Your task to perform on an android device: toggle javascript in the chrome app Image 0: 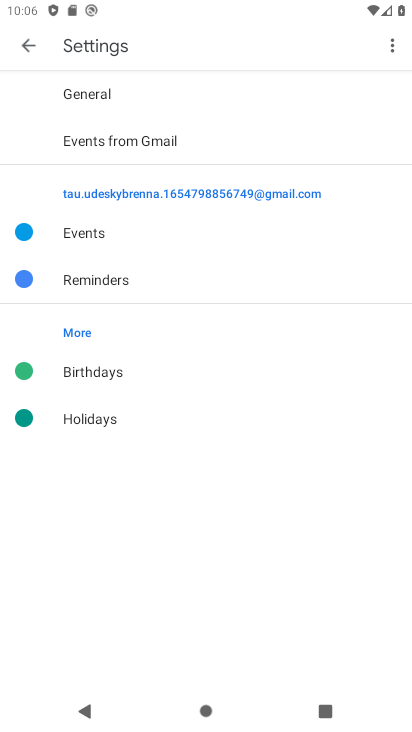
Step 0: press home button
Your task to perform on an android device: toggle javascript in the chrome app Image 1: 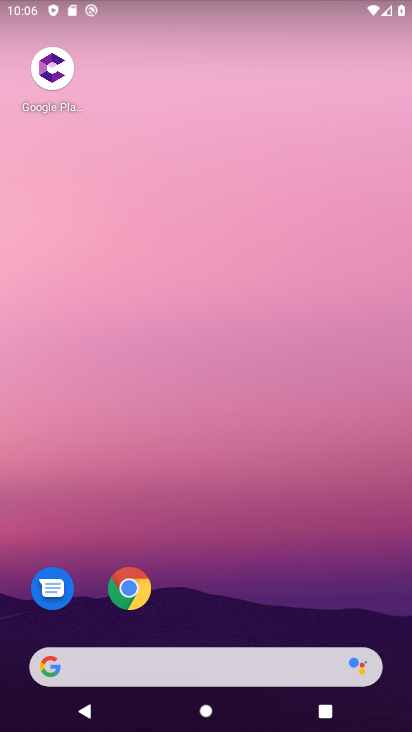
Step 1: drag from (190, 611) to (213, 87)
Your task to perform on an android device: toggle javascript in the chrome app Image 2: 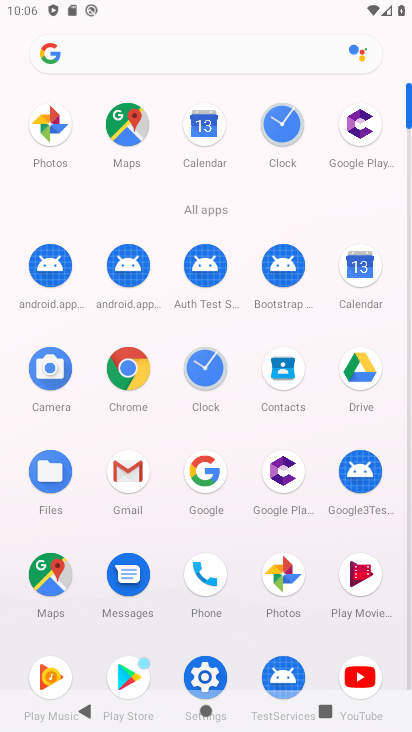
Step 2: click (127, 387)
Your task to perform on an android device: toggle javascript in the chrome app Image 3: 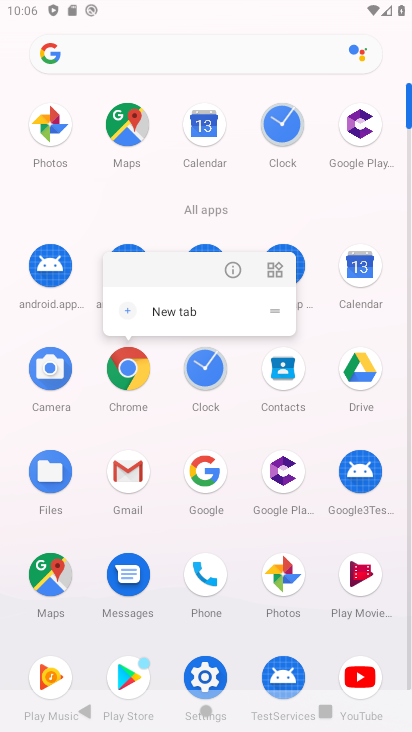
Step 3: click (128, 389)
Your task to perform on an android device: toggle javascript in the chrome app Image 4: 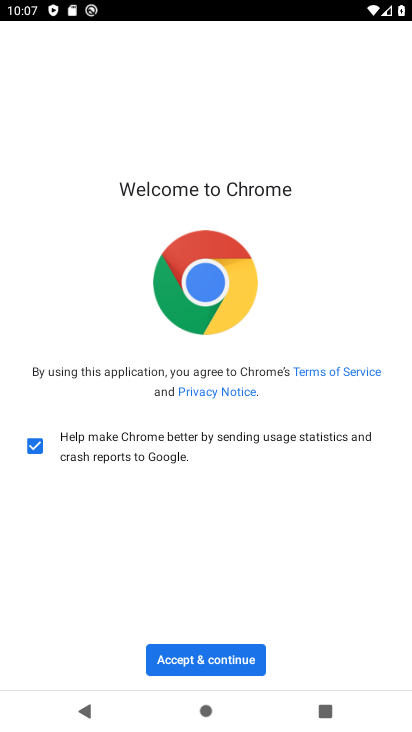
Step 4: click (198, 662)
Your task to perform on an android device: toggle javascript in the chrome app Image 5: 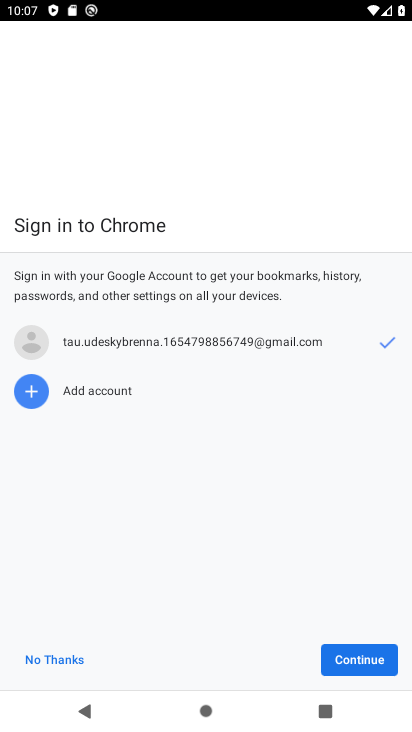
Step 5: click (363, 651)
Your task to perform on an android device: toggle javascript in the chrome app Image 6: 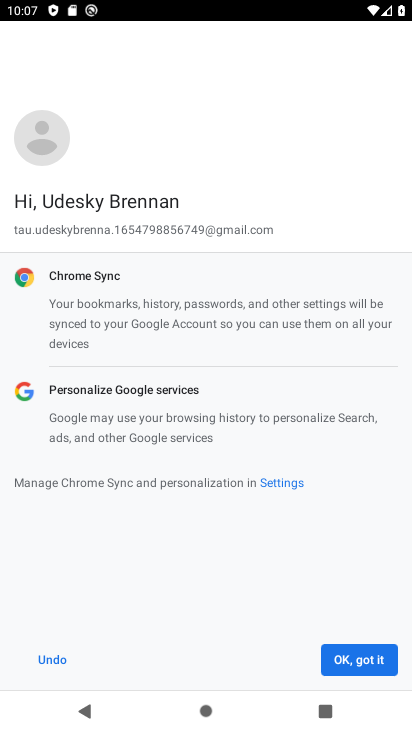
Step 6: click (363, 651)
Your task to perform on an android device: toggle javascript in the chrome app Image 7: 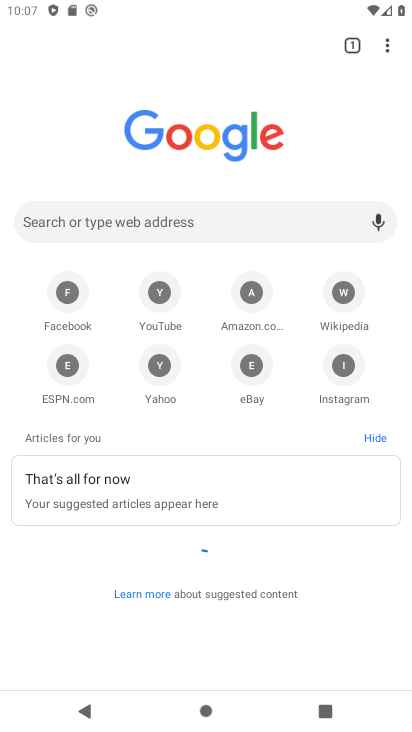
Step 7: drag from (394, 52) to (305, 363)
Your task to perform on an android device: toggle javascript in the chrome app Image 8: 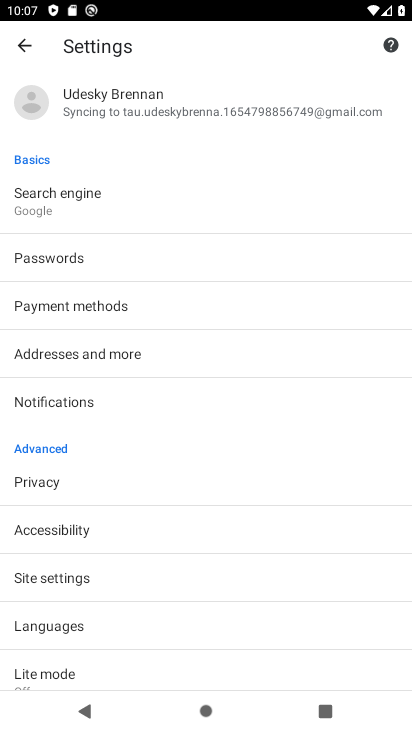
Step 8: click (122, 578)
Your task to perform on an android device: toggle javascript in the chrome app Image 9: 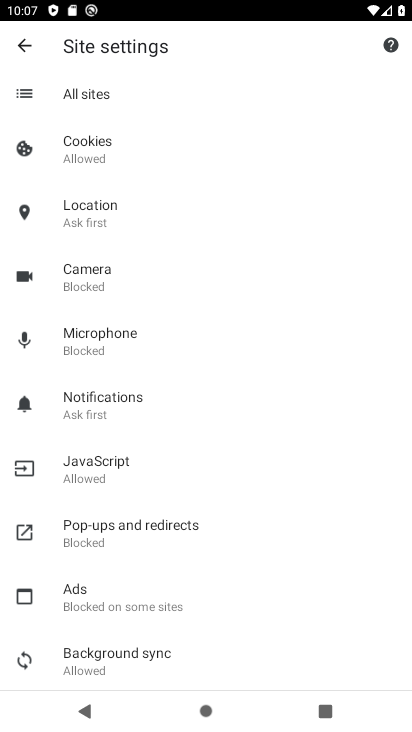
Step 9: click (134, 469)
Your task to perform on an android device: toggle javascript in the chrome app Image 10: 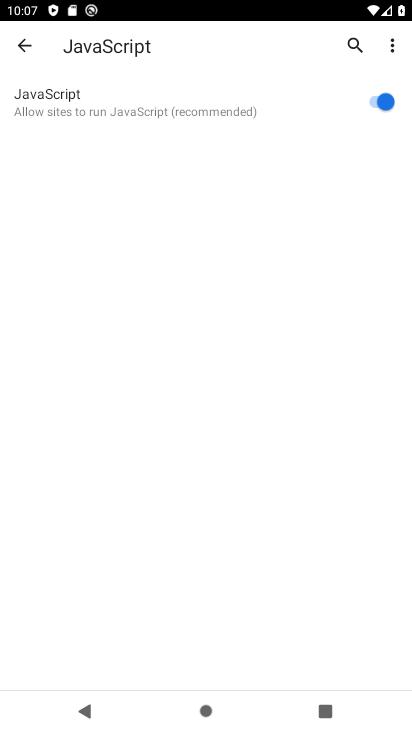
Step 10: click (374, 104)
Your task to perform on an android device: toggle javascript in the chrome app Image 11: 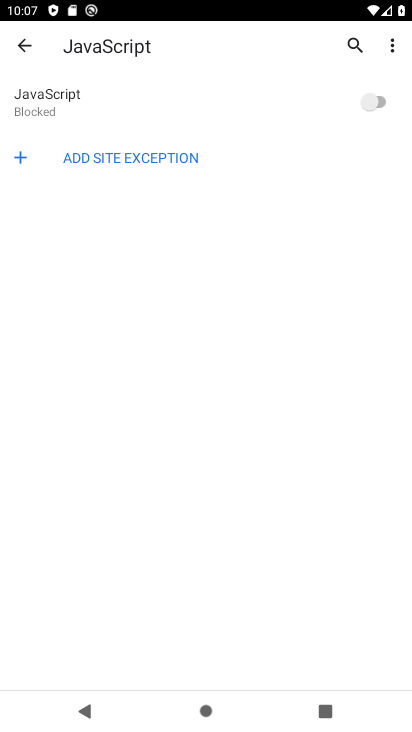
Step 11: task complete